Your task to perform on an android device: see tabs open on other devices in the chrome app Image 0: 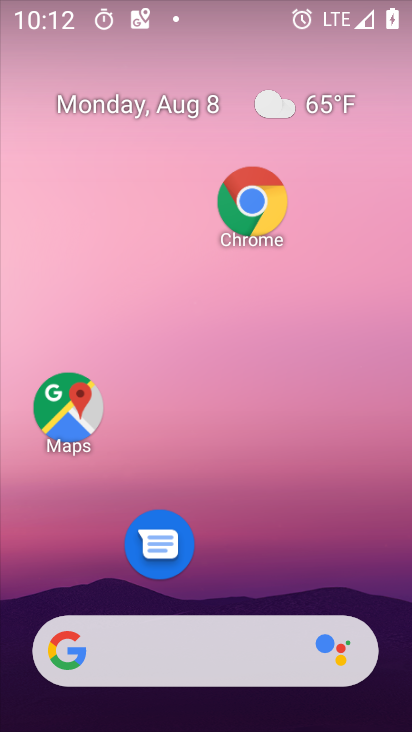
Step 0: drag from (223, 593) to (217, 158)
Your task to perform on an android device: see tabs open on other devices in the chrome app Image 1: 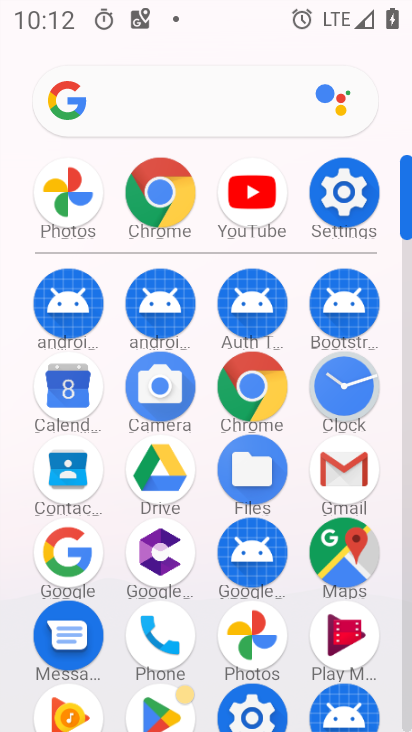
Step 1: click (251, 375)
Your task to perform on an android device: see tabs open on other devices in the chrome app Image 2: 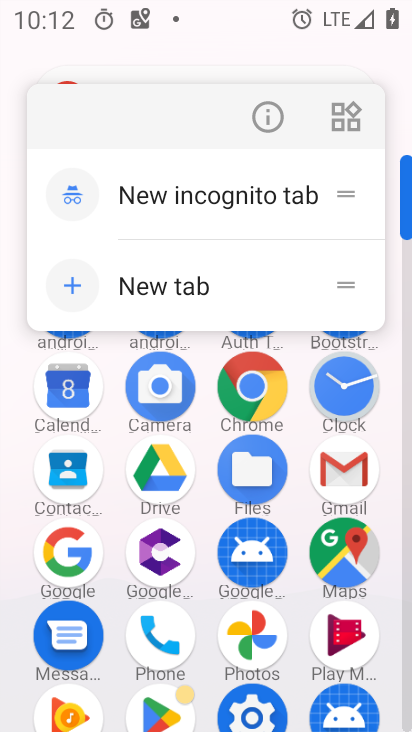
Step 2: click (255, 377)
Your task to perform on an android device: see tabs open on other devices in the chrome app Image 3: 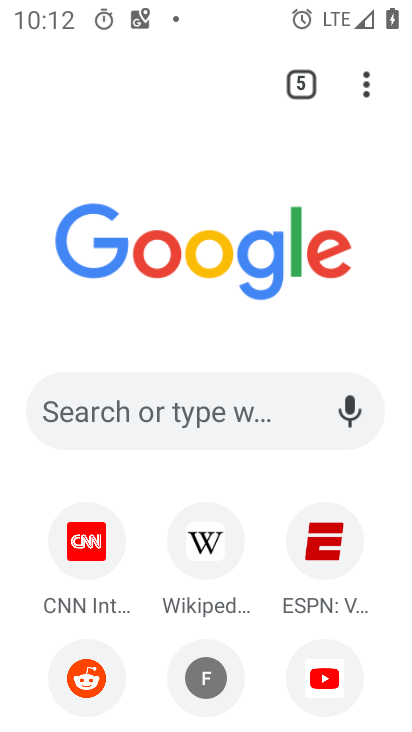
Step 3: click (364, 84)
Your task to perform on an android device: see tabs open on other devices in the chrome app Image 4: 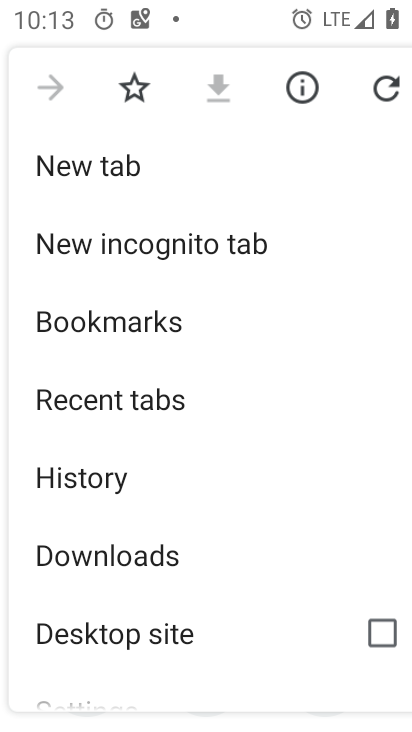
Step 4: click (198, 397)
Your task to perform on an android device: see tabs open on other devices in the chrome app Image 5: 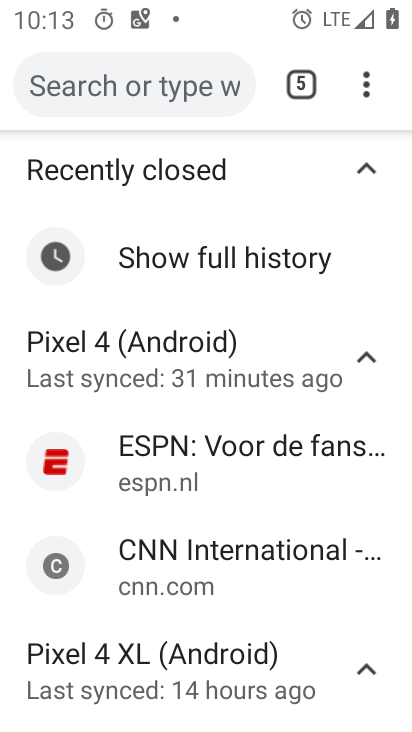
Step 5: task complete